Your task to perform on an android device: Go to eBay Image 0: 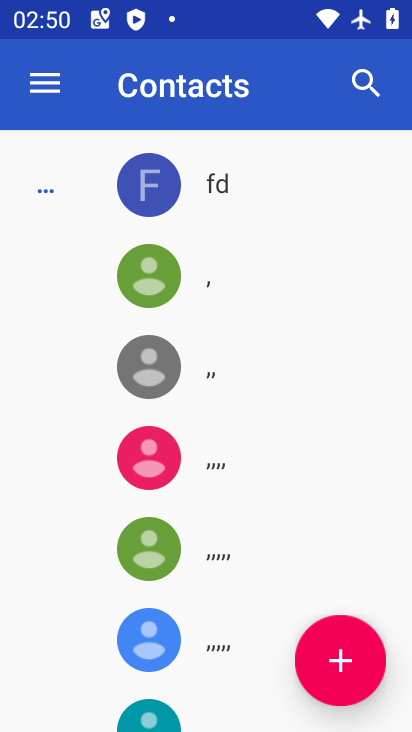
Step 0: press home button
Your task to perform on an android device: Go to eBay Image 1: 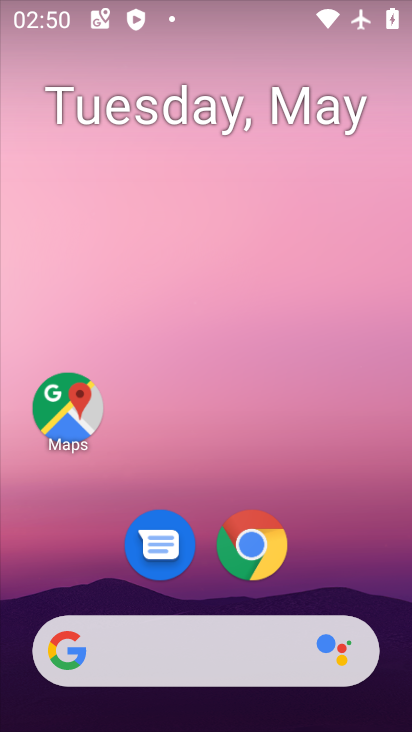
Step 1: click (254, 549)
Your task to perform on an android device: Go to eBay Image 2: 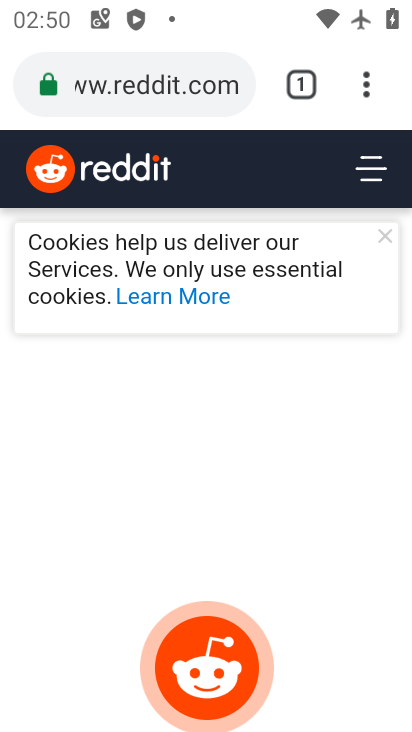
Step 2: click (155, 83)
Your task to perform on an android device: Go to eBay Image 3: 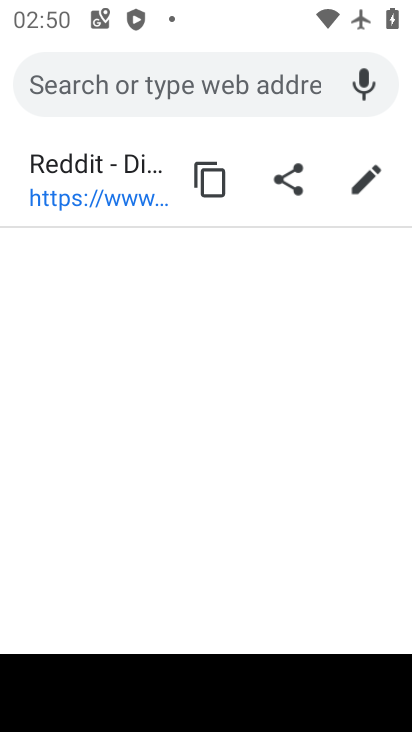
Step 3: type "ebay"
Your task to perform on an android device: Go to eBay Image 4: 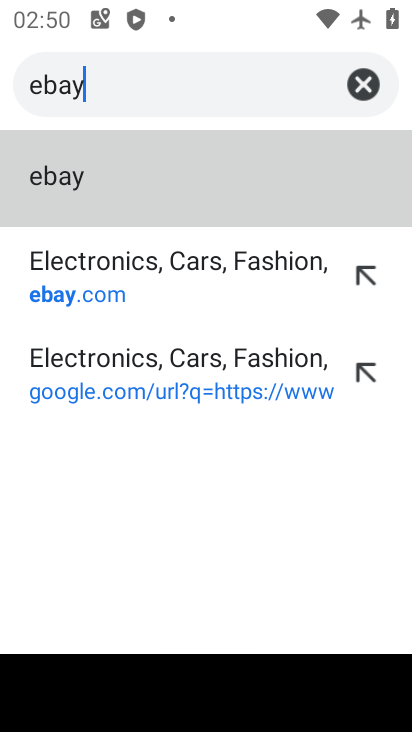
Step 4: click (63, 177)
Your task to perform on an android device: Go to eBay Image 5: 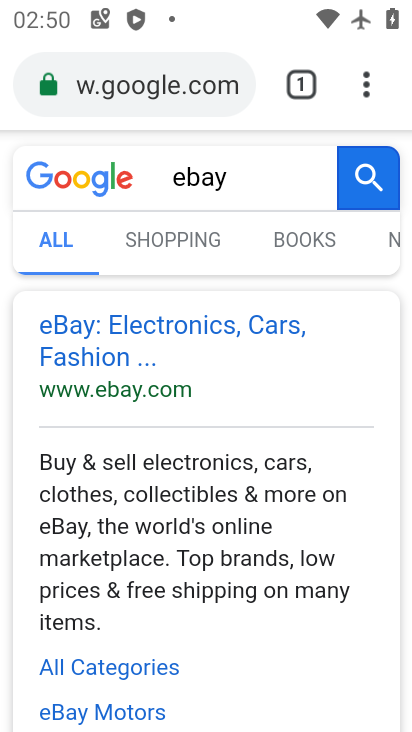
Step 5: click (104, 343)
Your task to perform on an android device: Go to eBay Image 6: 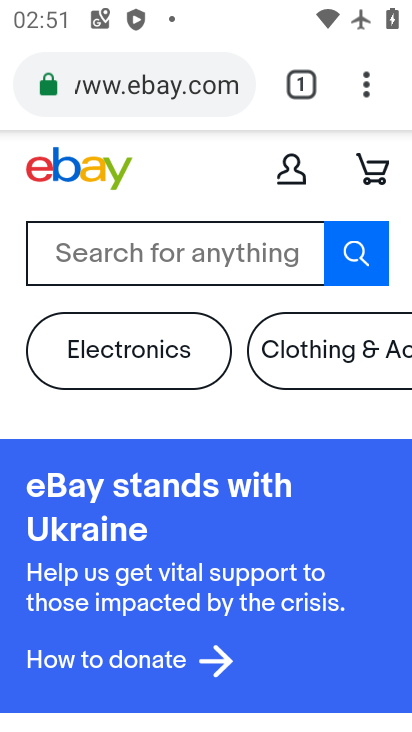
Step 6: task complete